Your task to perform on an android device: add a label to a message in the gmail app Image 0: 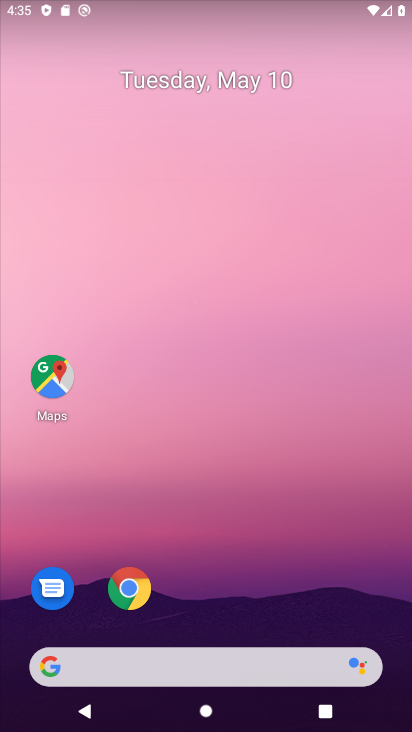
Step 0: drag from (275, 573) to (262, 34)
Your task to perform on an android device: add a label to a message in the gmail app Image 1: 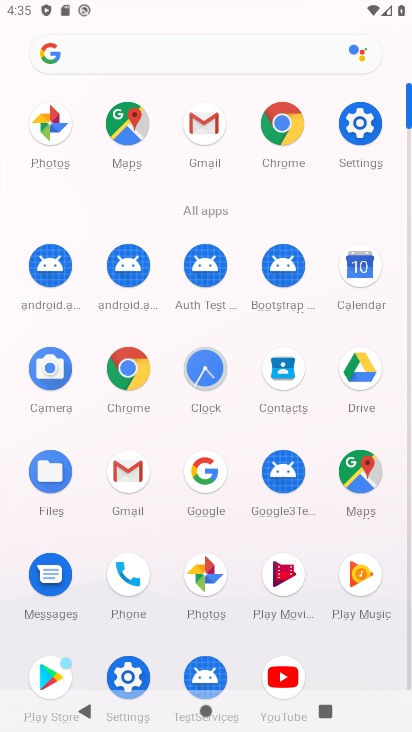
Step 1: click (201, 122)
Your task to perform on an android device: add a label to a message in the gmail app Image 2: 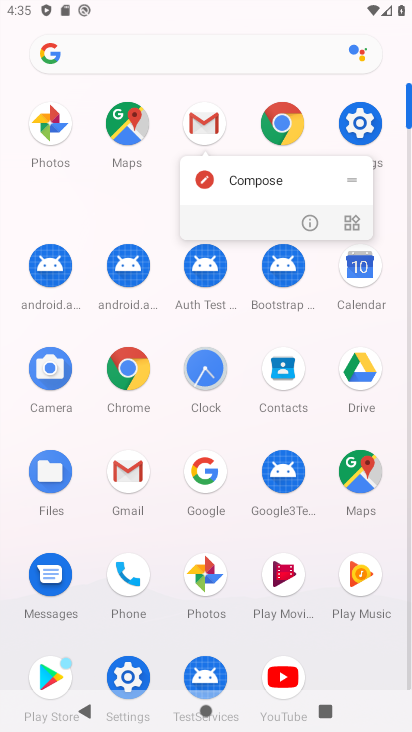
Step 2: click (202, 119)
Your task to perform on an android device: add a label to a message in the gmail app Image 3: 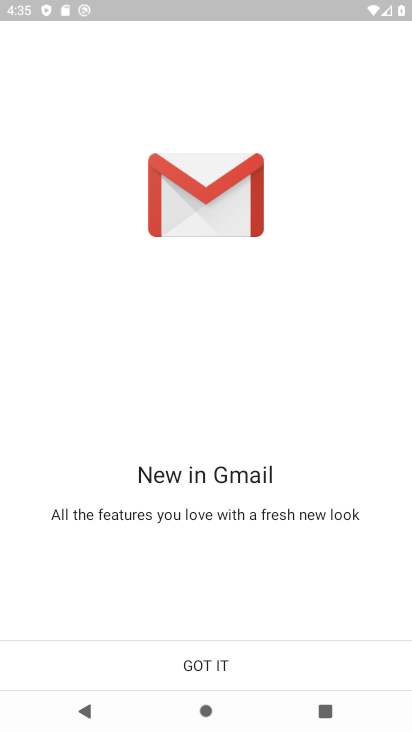
Step 3: click (253, 658)
Your task to perform on an android device: add a label to a message in the gmail app Image 4: 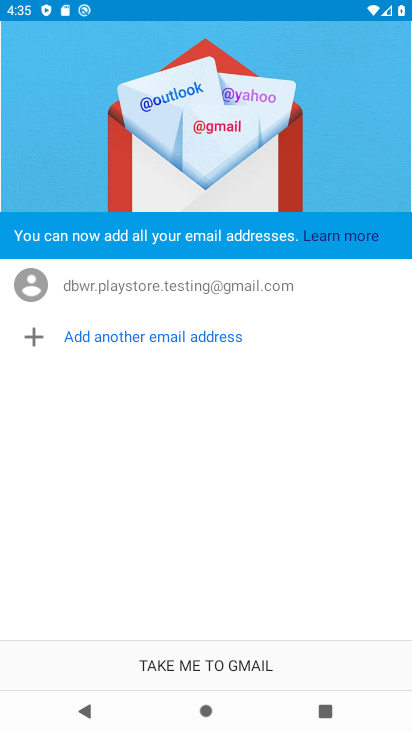
Step 4: click (253, 658)
Your task to perform on an android device: add a label to a message in the gmail app Image 5: 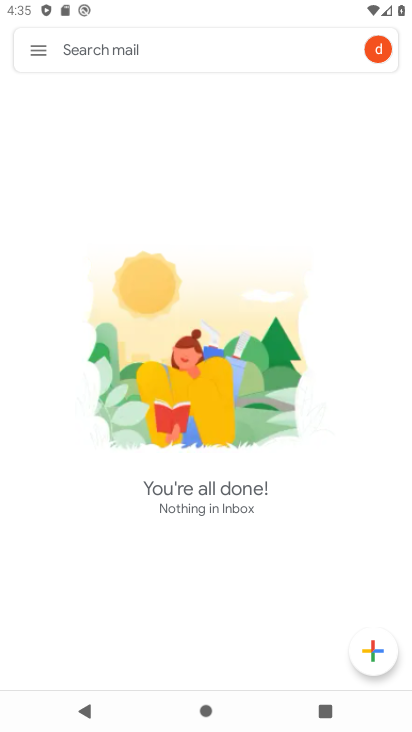
Step 5: click (38, 46)
Your task to perform on an android device: add a label to a message in the gmail app Image 6: 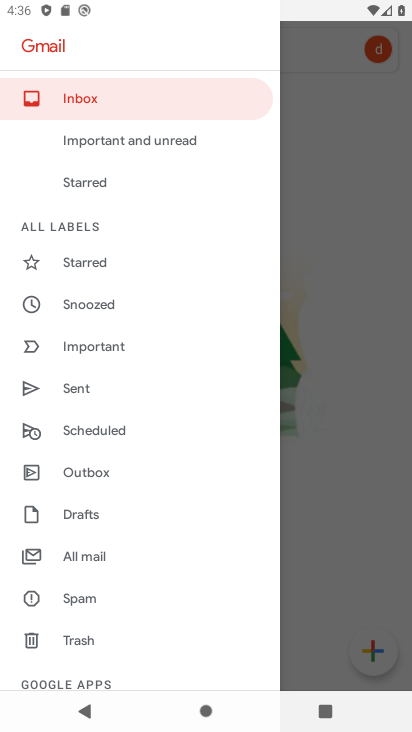
Step 6: click (106, 549)
Your task to perform on an android device: add a label to a message in the gmail app Image 7: 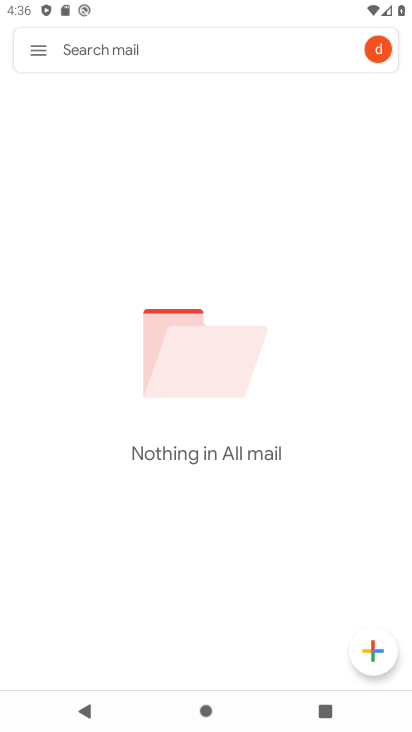
Step 7: task complete